Your task to perform on an android device: Open the stopwatch Image 0: 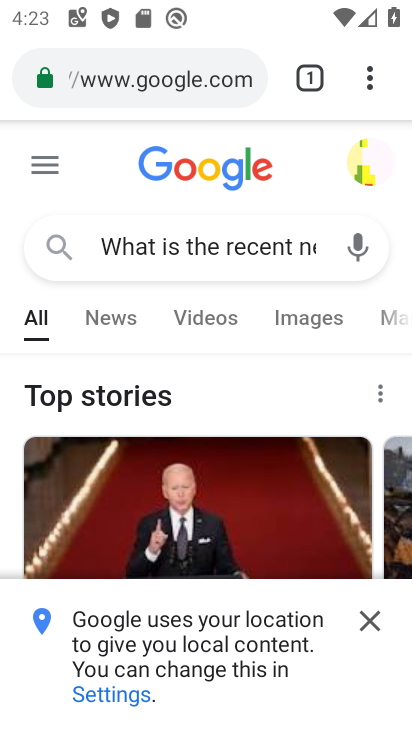
Step 0: press home button
Your task to perform on an android device: Open the stopwatch Image 1: 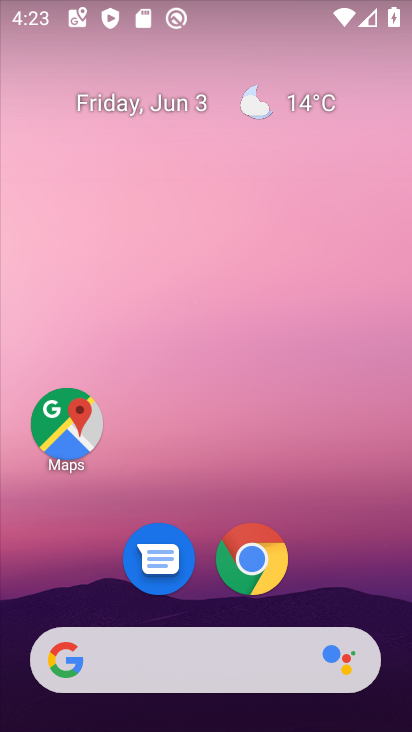
Step 1: drag from (328, 590) to (317, 92)
Your task to perform on an android device: Open the stopwatch Image 2: 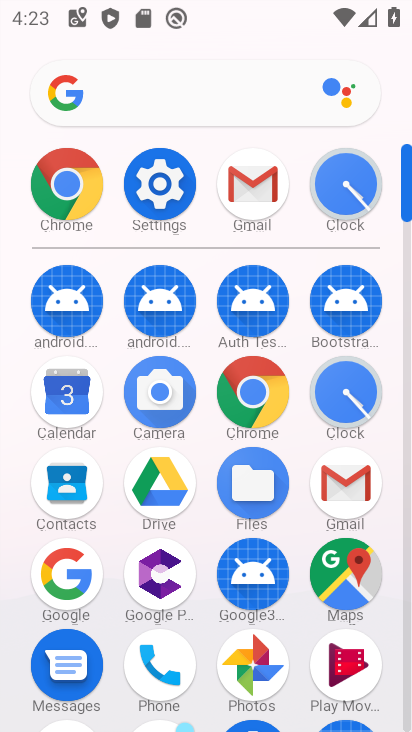
Step 2: click (346, 176)
Your task to perform on an android device: Open the stopwatch Image 3: 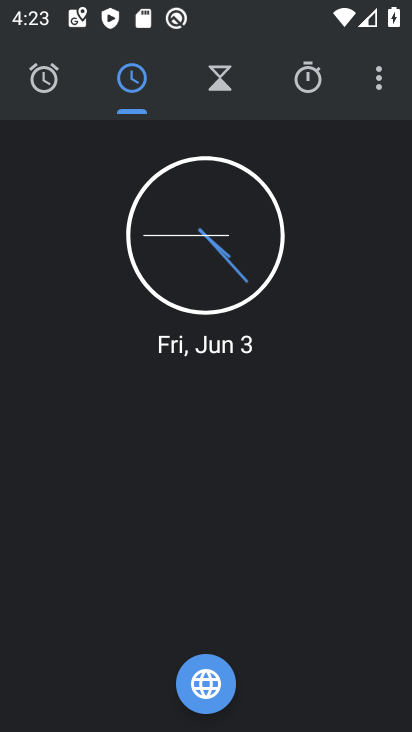
Step 3: click (306, 79)
Your task to perform on an android device: Open the stopwatch Image 4: 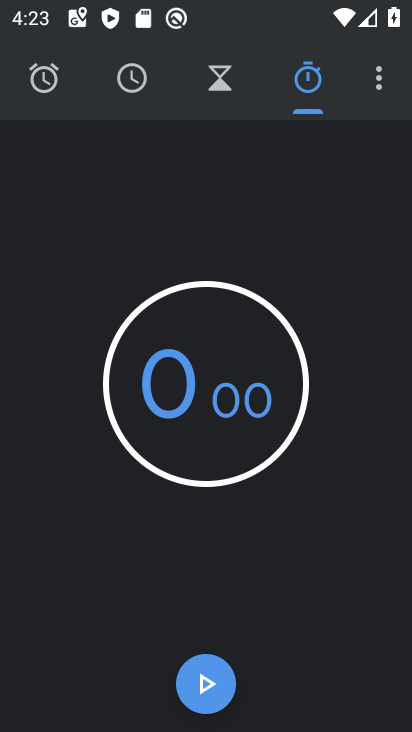
Step 4: task complete